Your task to perform on an android device: Open eBay Image 0: 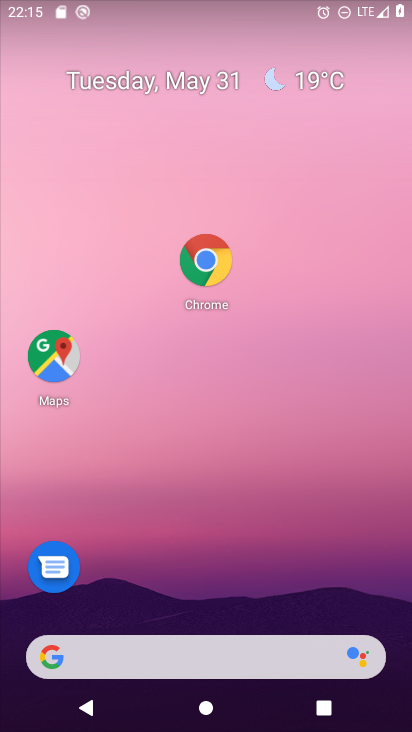
Step 0: click (218, 255)
Your task to perform on an android device: Open eBay Image 1: 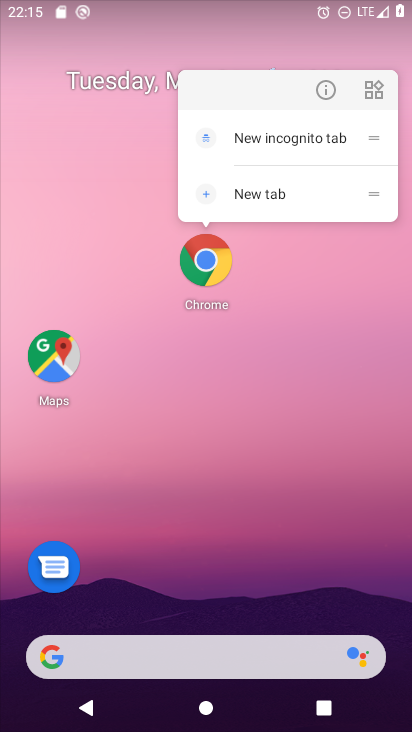
Step 1: click (196, 267)
Your task to perform on an android device: Open eBay Image 2: 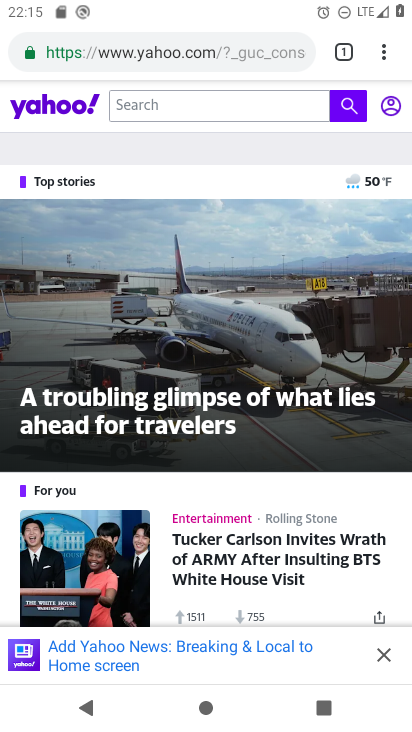
Step 2: click (341, 54)
Your task to perform on an android device: Open eBay Image 3: 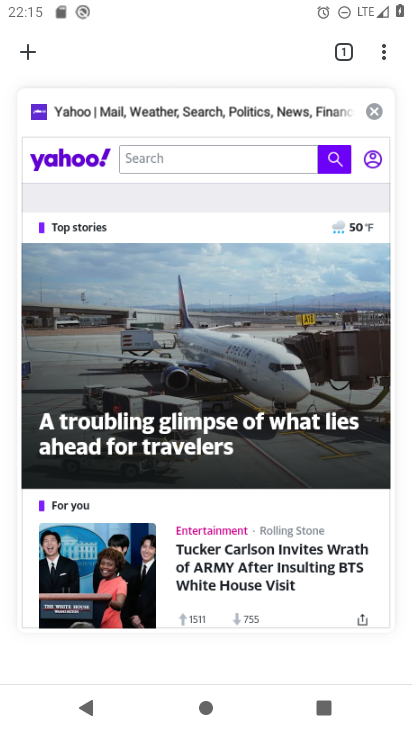
Step 3: click (371, 114)
Your task to perform on an android device: Open eBay Image 4: 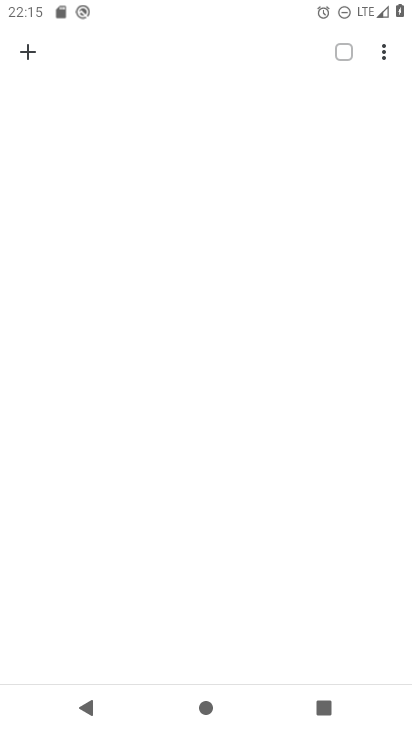
Step 4: click (30, 64)
Your task to perform on an android device: Open eBay Image 5: 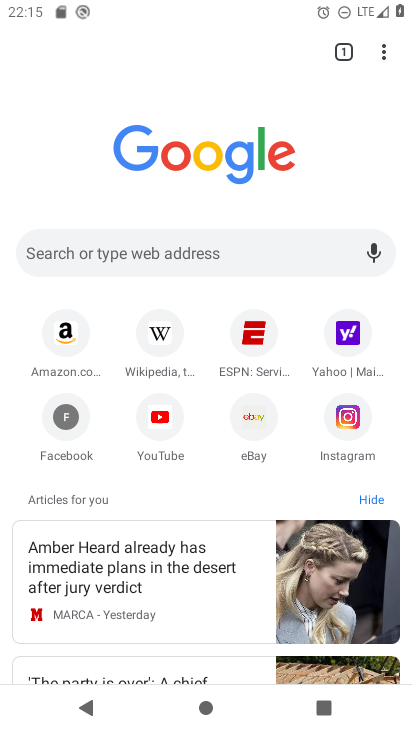
Step 5: click (270, 428)
Your task to perform on an android device: Open eBay Image 6: 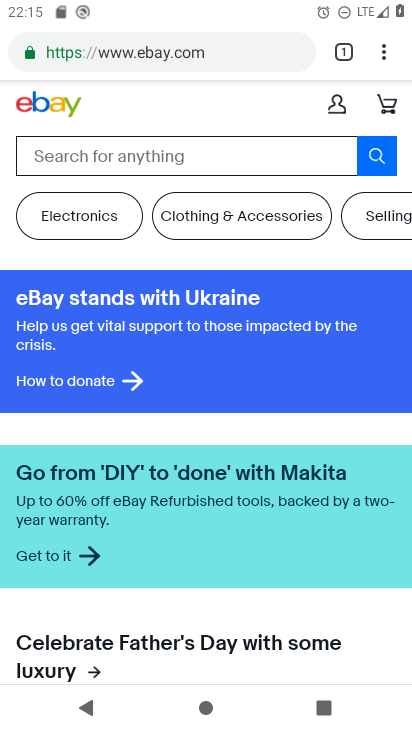
Step 6: task complete